Your task to perform on an android device: turn off data saver in the chrome app Image 0: 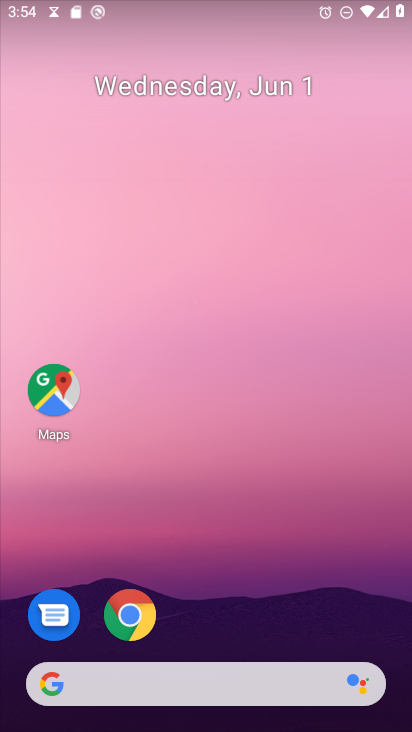
Step 0: press home button
Your task to perform on an android device: turn off data saver in the chrome app Image 1: 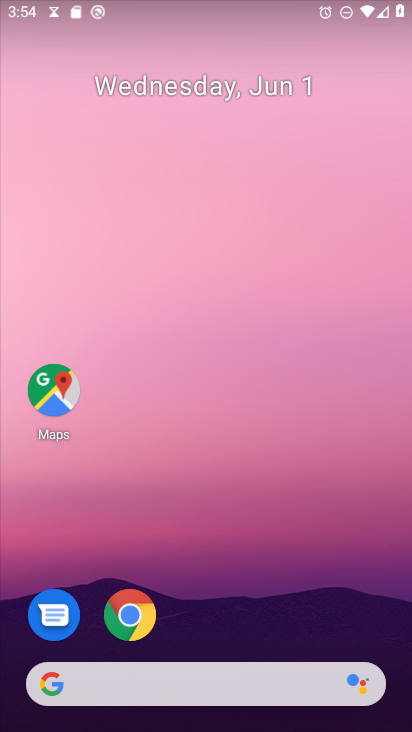
Step 1: click (127, 607)
Your task to perform on an android device: turn off data saver in the chrome app Image 2: 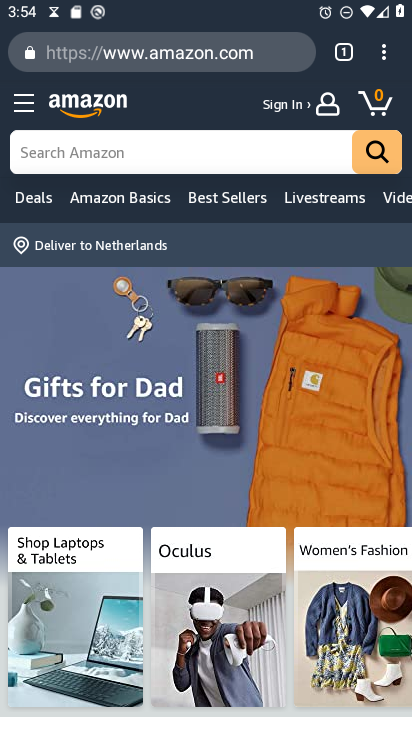
Step 2: click (384, 49)
Your task to perform on an android device: turn off data saver in the chrome app Image 3: 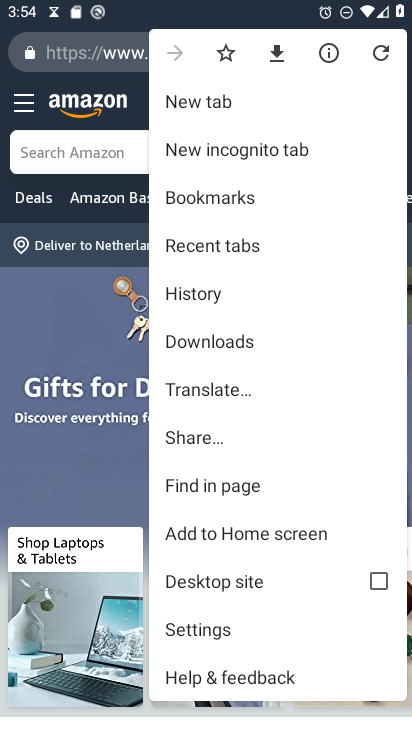
Step 3: click (235, 627)
Your task to perform on an android device: turn off data saver in the chrome app Image 4: 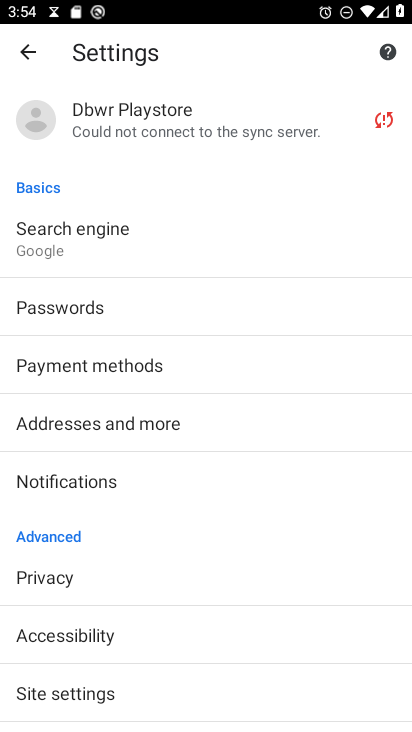
Step 4: drag from (169, 692) to (216, 307)
Your task to perform on an android device: turn off data saver in the chrome app Image 5: 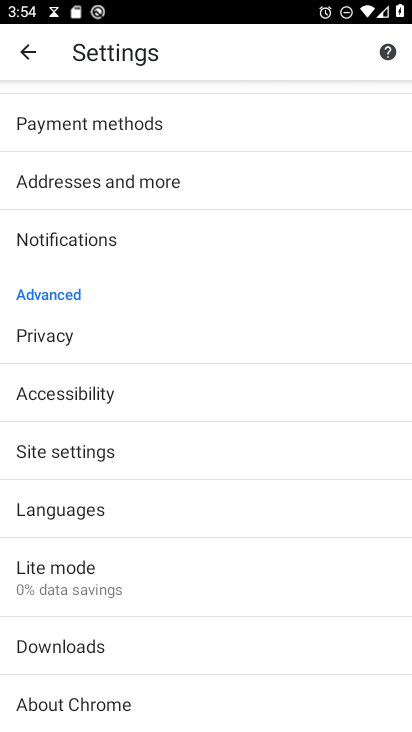
Step 5: click (118, 577)
Your task to perform on an android device: turn off data saver in the chrome app Image 6: 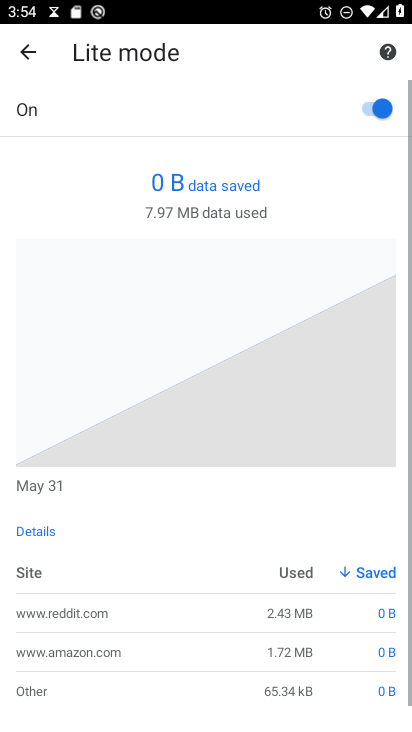
Step 6: click (378, 95)
Your task to perform on an android device: turn off data saver in the chrome app Image 7: 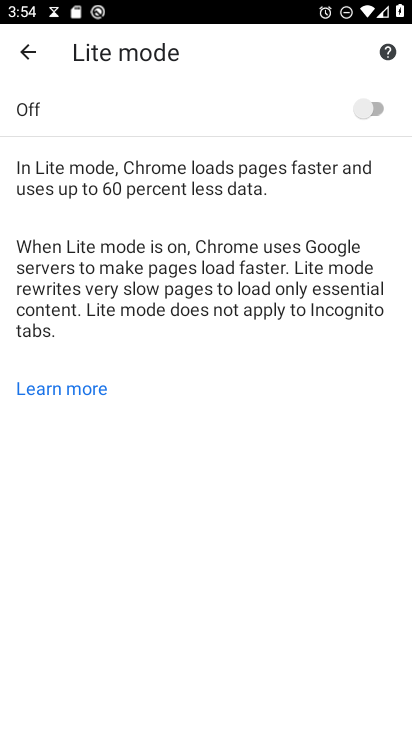
Step 7: task complete